Your task to perform on an android device: Search for "lg ultragear" on target, select the first entry, add it to the cart, then select checkout. Image 0: 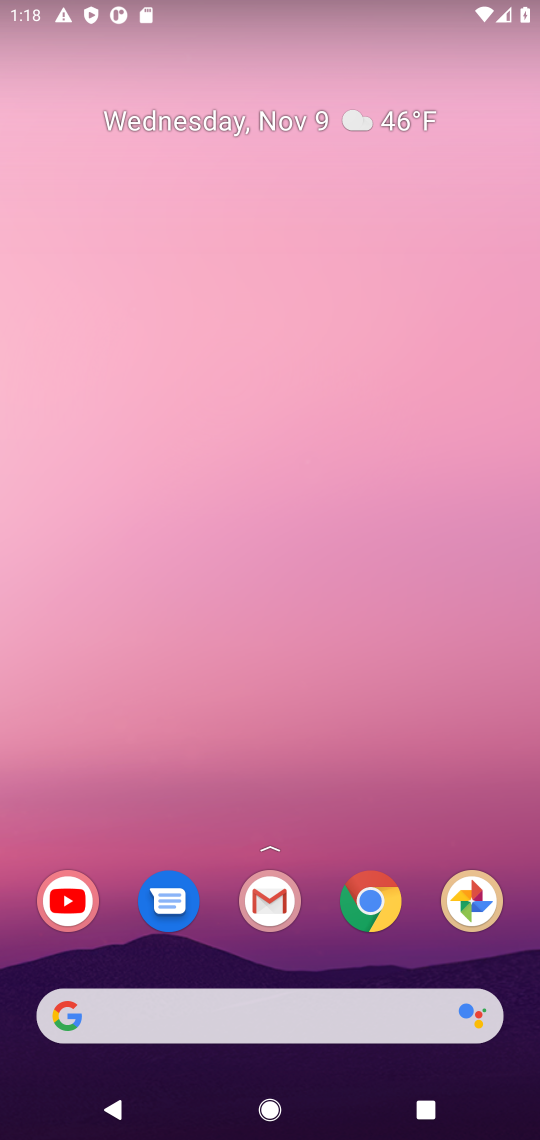
Step 0: click (381, 909)
Your task to perform on an android device: Search for "lg ultragear" on target, select the first entry, add it to the cart, then select checkout. Image 1: 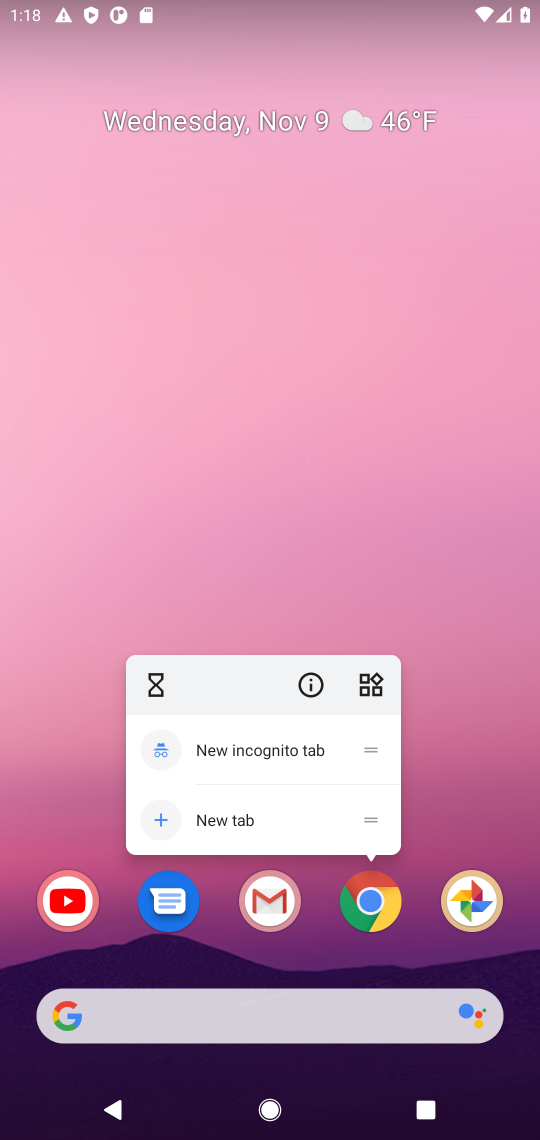
Step 1: click (366, 918)
Your task to perform on an android device: Search for "lg ultragear" on target, select the first entry, add it to the cart, then select checkout. Image 2: 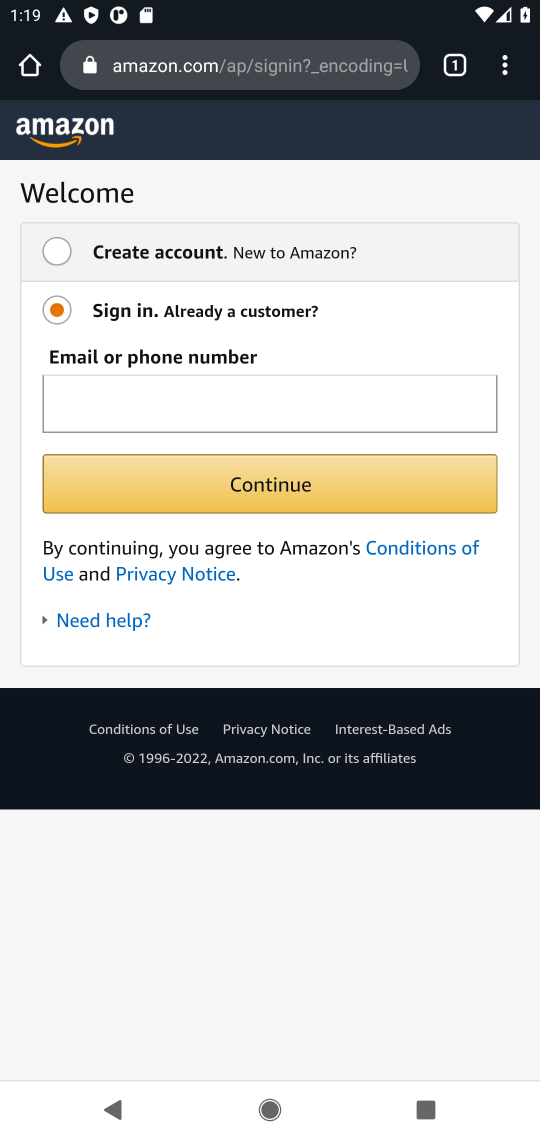
Step 2: click (259, 66)
Your task to perform on an android device: Search for "lg ultragear" on target, select the first entry, add it to the cart, then select checkout. Image 3: 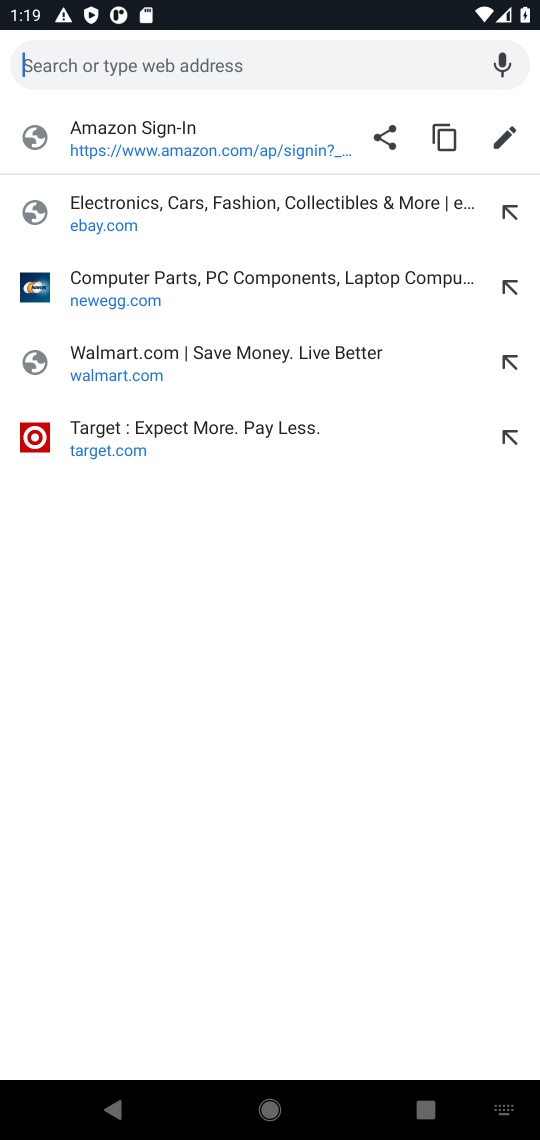
Step 3: press enter
Your task to perform on an android device: Search for "lg ultragear" on target, select the first entry, add it to the cart, then select checkout. Image 4: 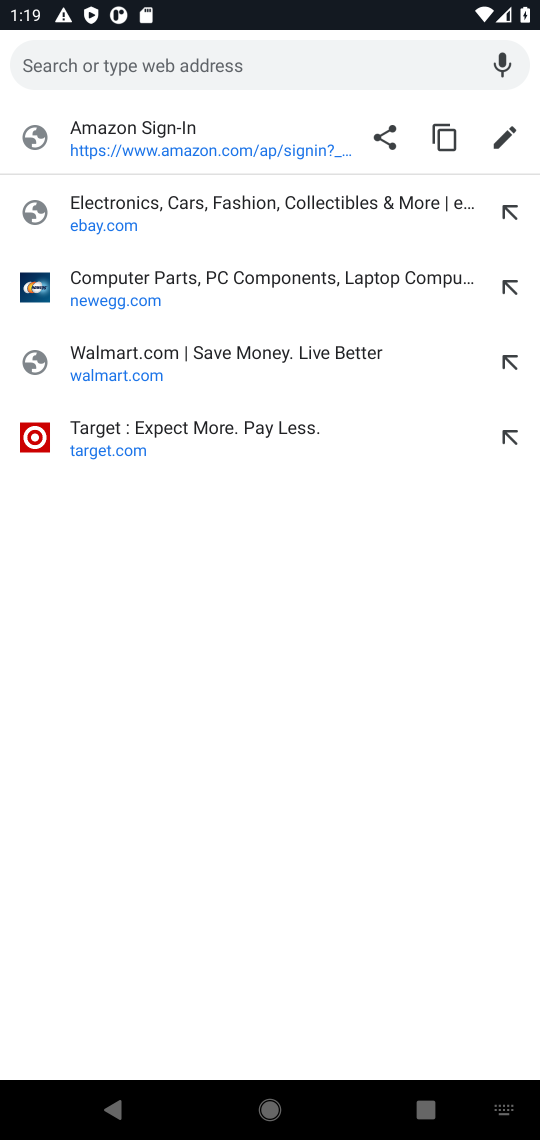
Step 4: type "target"
Your task to perform on an android device: Search for "lg ultragear" on target, select the first entry, add it to the cart, then select checkout. Image 5: 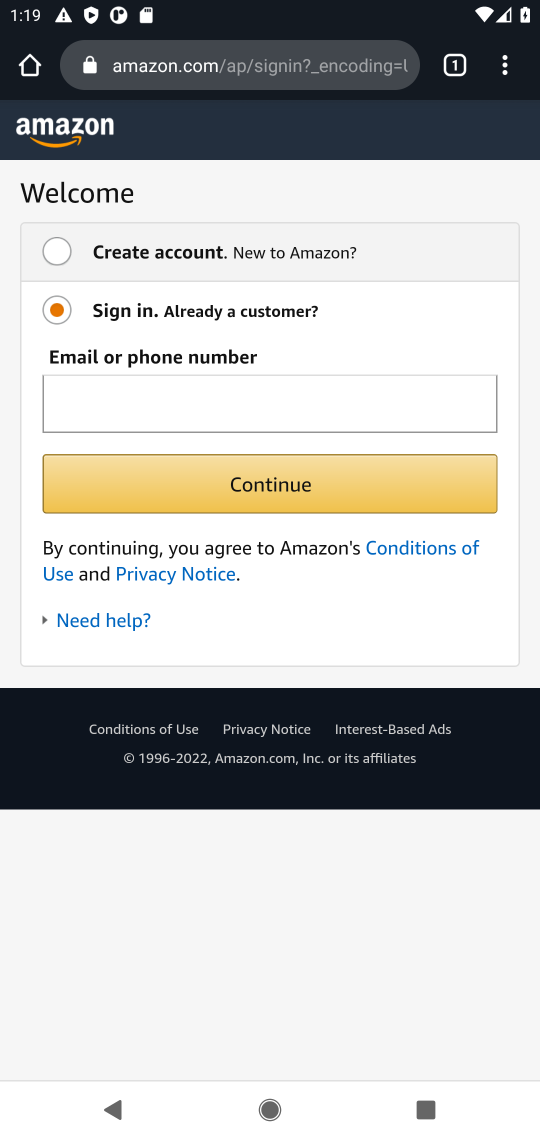
Step 5: click (290, 68)
Your task to perform on an android device: Search for "lg ultragear" on target, select the first entry, add it to the cart, then select checkout. Image 6: 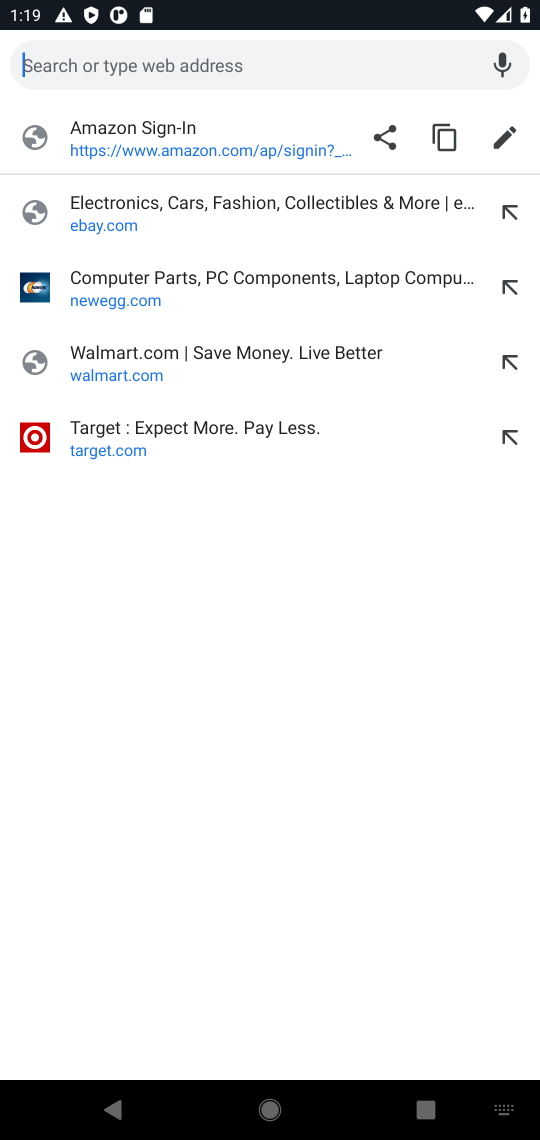
Step 6: press enter
Your task to perform on an android device: Search for "lg ultragear" on target, select the first entry, add it to the cart, then select checkout. Image 7: 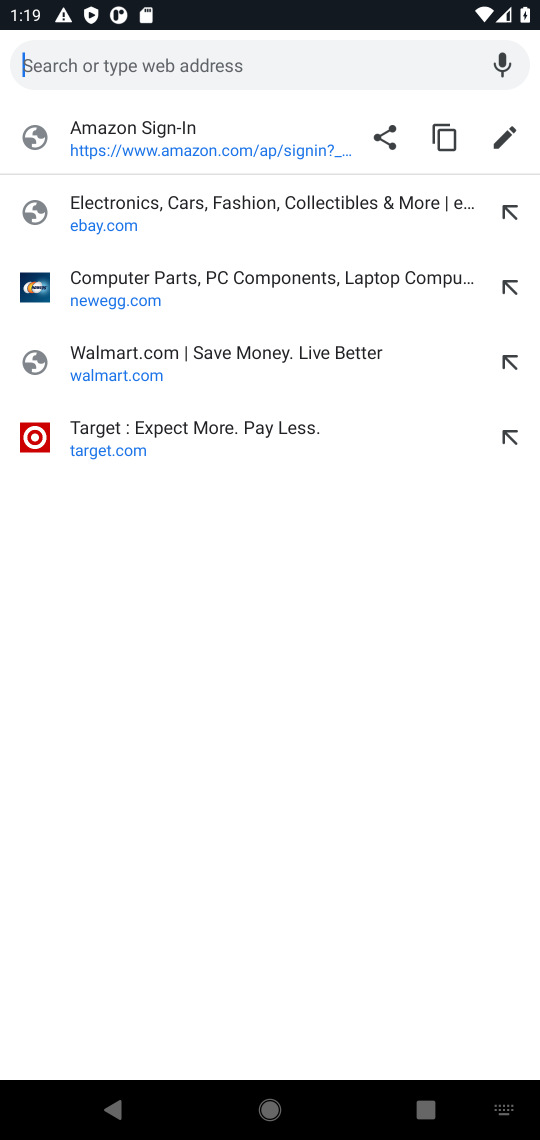
Step 7: type "target"
Your task to perform on an android device: Search for "lg ultragear" on target, select the first entry, add it to the cart, then select checkout. Image 8: 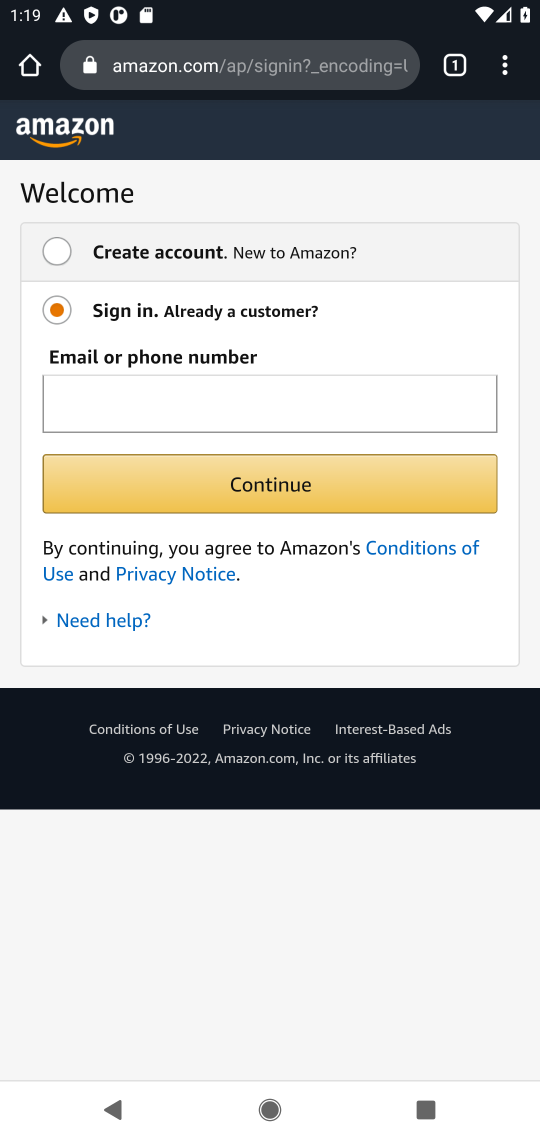
Step 8: click (280, 75)
Your task to perform on an android device: Search for "lg ultragear" on target, select the first entry, add it to the cart, then select checkout. Image 9: 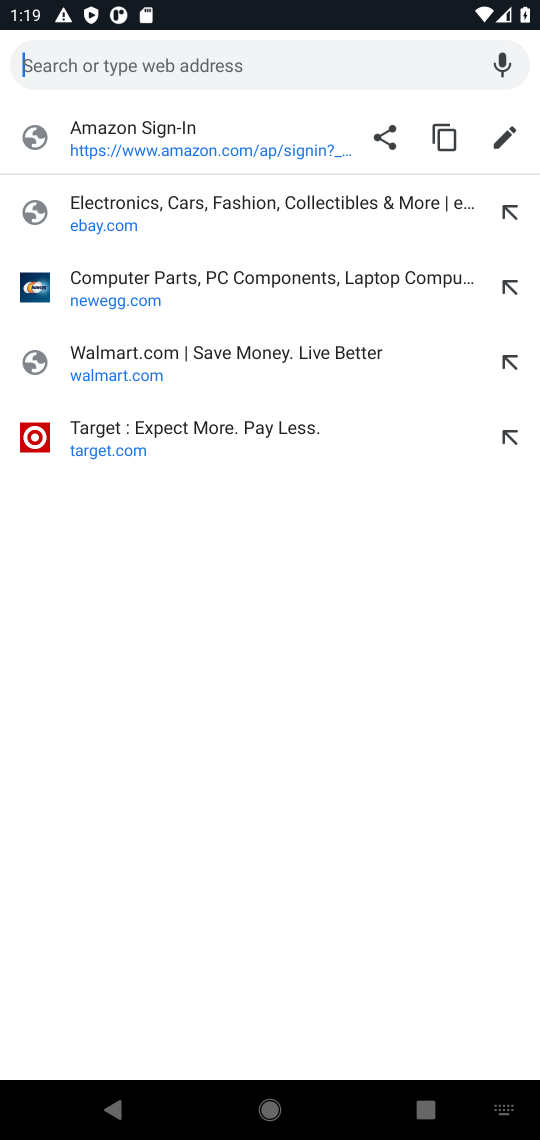
Step 9: type "target"
Your task to perform on an android device: Search for "lg ultragear" on target, select the first entry, add it to the cart, then select checkout. Image 10: 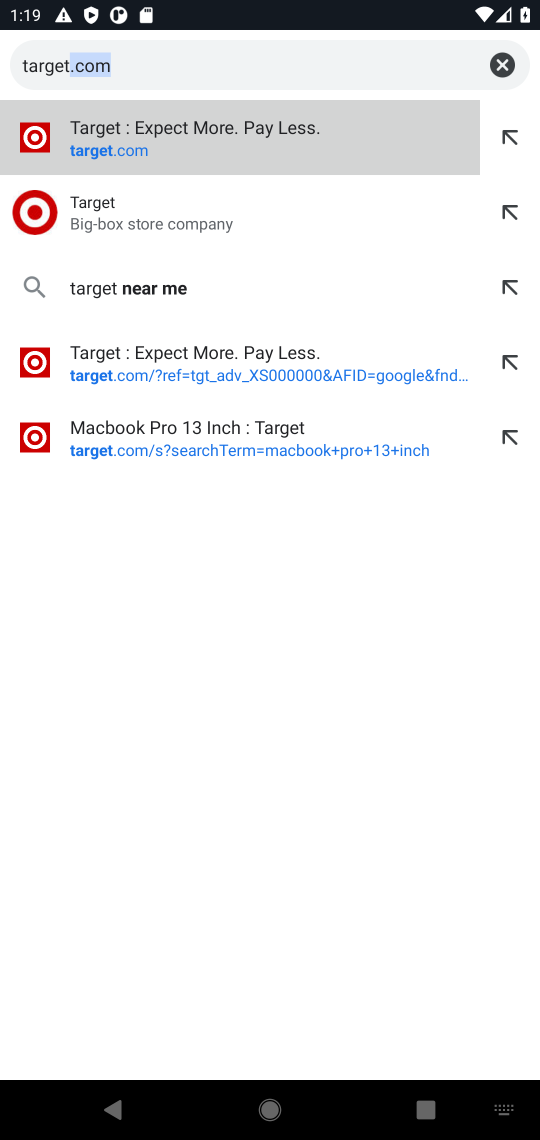
Step 10: click (391, 60)
Your task to perform on an android device: Search for "lg ultragear" on target, select the first entry, add it to the cart, then select checkout. Image 11: 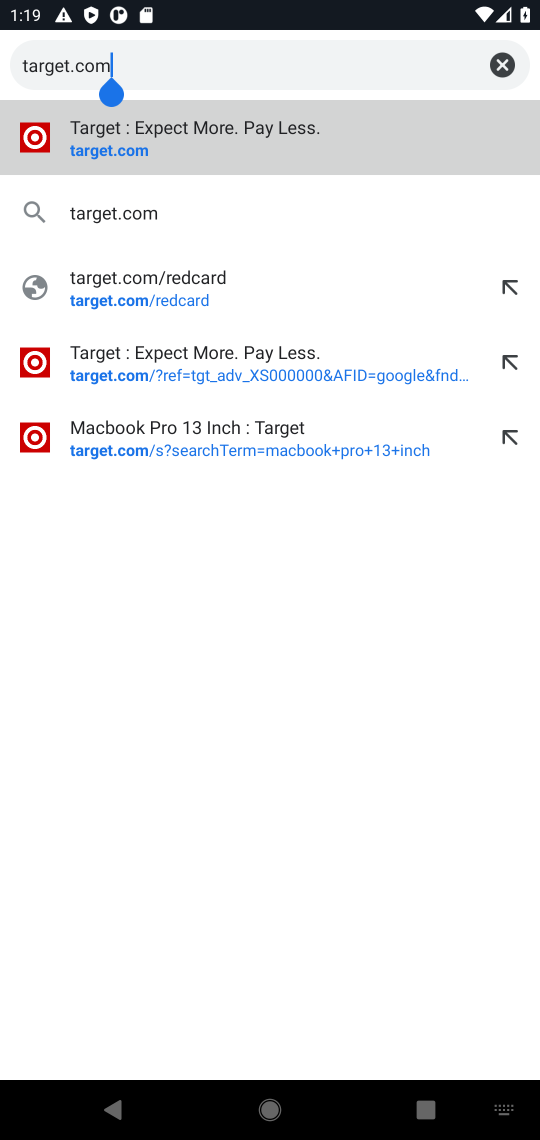
Step 11: click (138, 202)
Your task to perform on an android device: Search for "lg ultragear" on target, select the first entry, add it to the cart, then select checkout. Image 12: 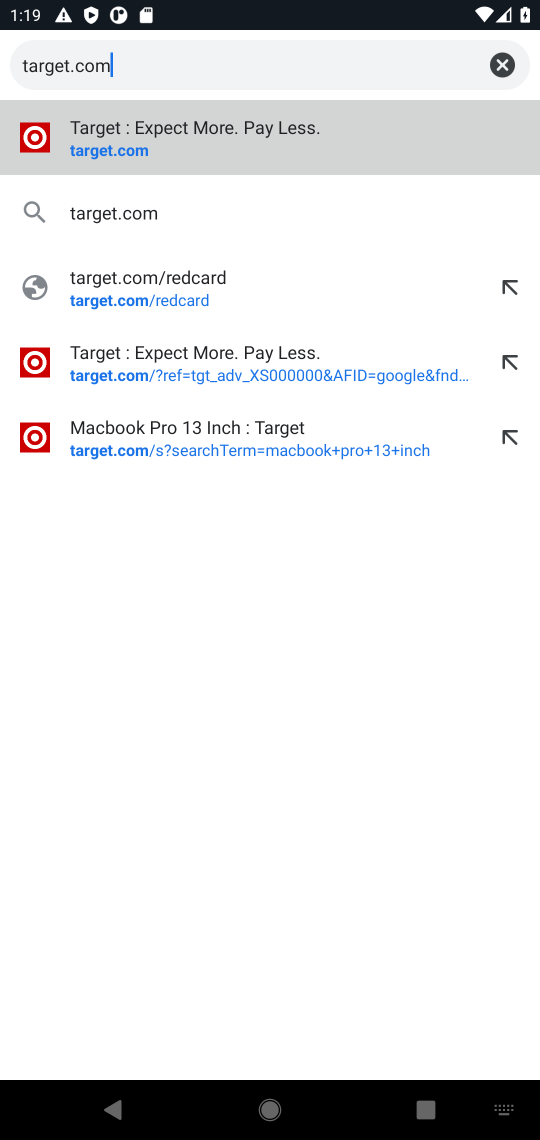
Step 12: click (135, 214)
Your task to perform on an android device: Search for "lg ultragear" on target, select the first entry, add it to the cart, then select checkout. Image 13: 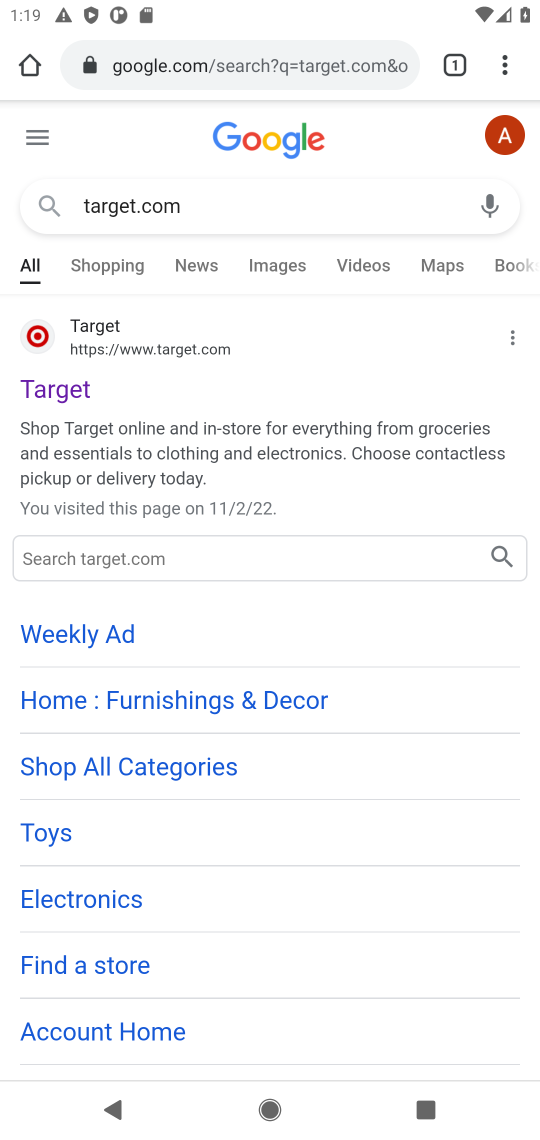
Step 13: click (180, 349)
Your task to perform on an android device: Search for "lg ultragear" on target, select the first entry, add it to the cart, then select checkout. Image 14: 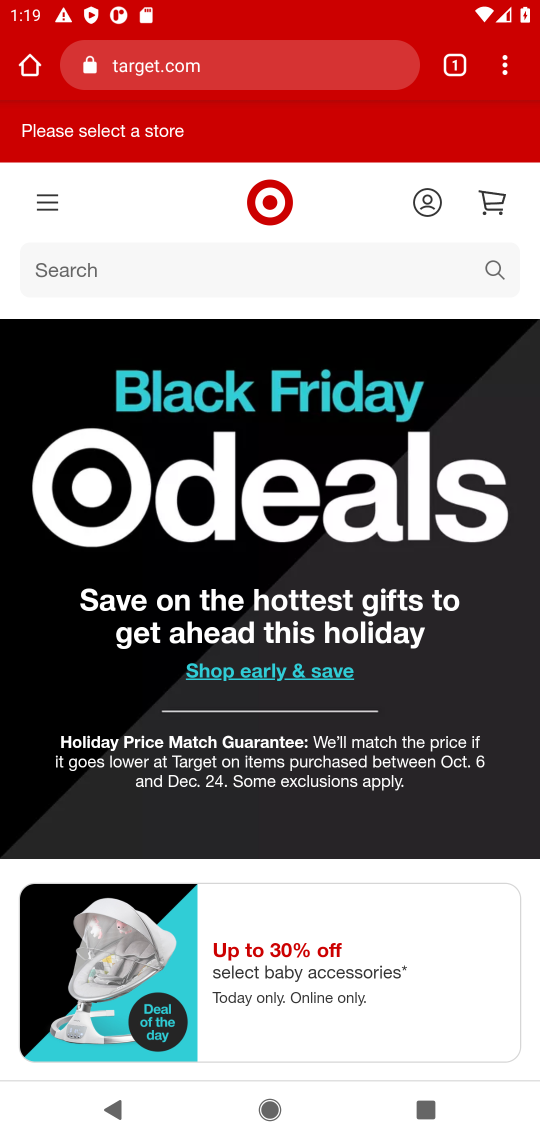
Step 14: click (502, 268)
Your task to perform on an android device: Search for "lg ultragear" on target, select the first entry, add it to the cart, then select checkout. Image 15: 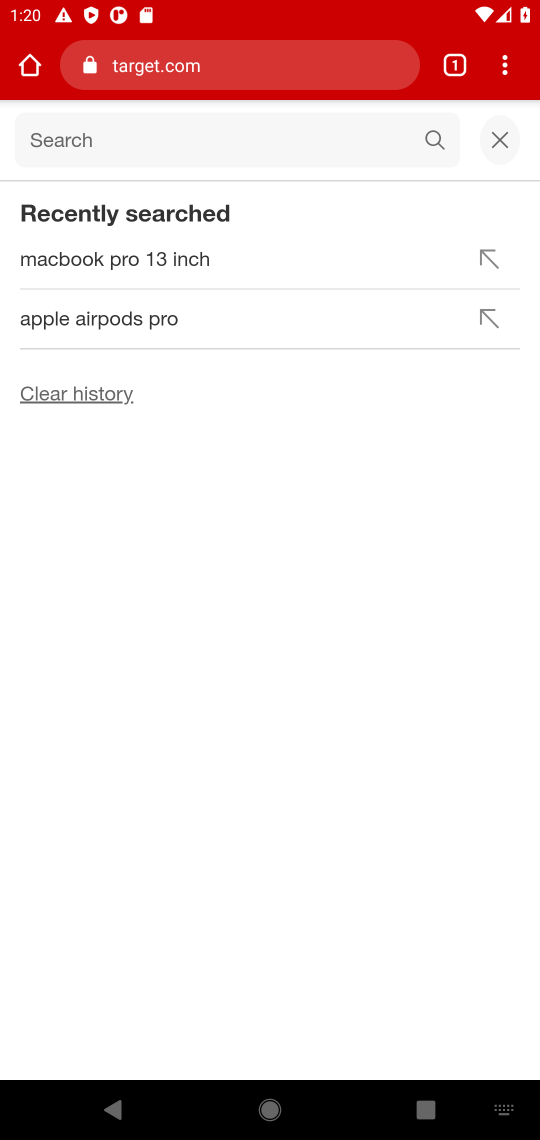
Step 15: type "lg ultragear"
Your task to perform on an android device: Search for "lg ultragear" on target, select the first entry, add it to the cart, then select checkout. Image 16: 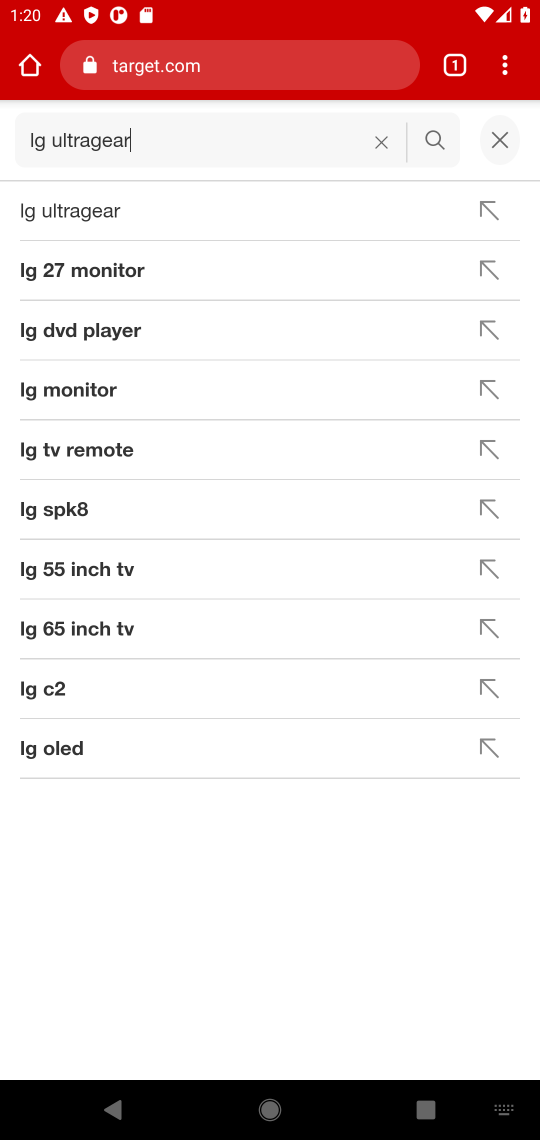
Step 16: click (97, 210)
Your task to perform on an android device: Search for "lg ultragear" on target, select the first entry, add it to the cart, then select checkout. Image 17: 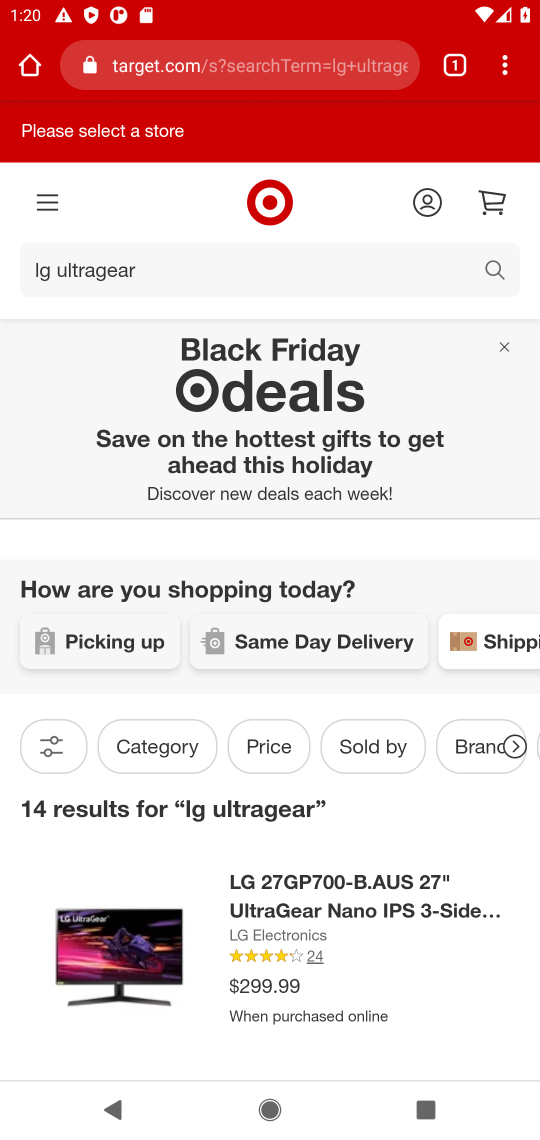
Step 17: drag from (437, 893) to (472, 354)
Your task to perform on an android device: Search for "lg ultragear" on target, select the first entry, add it to the cart, then select checkout. Image 18: 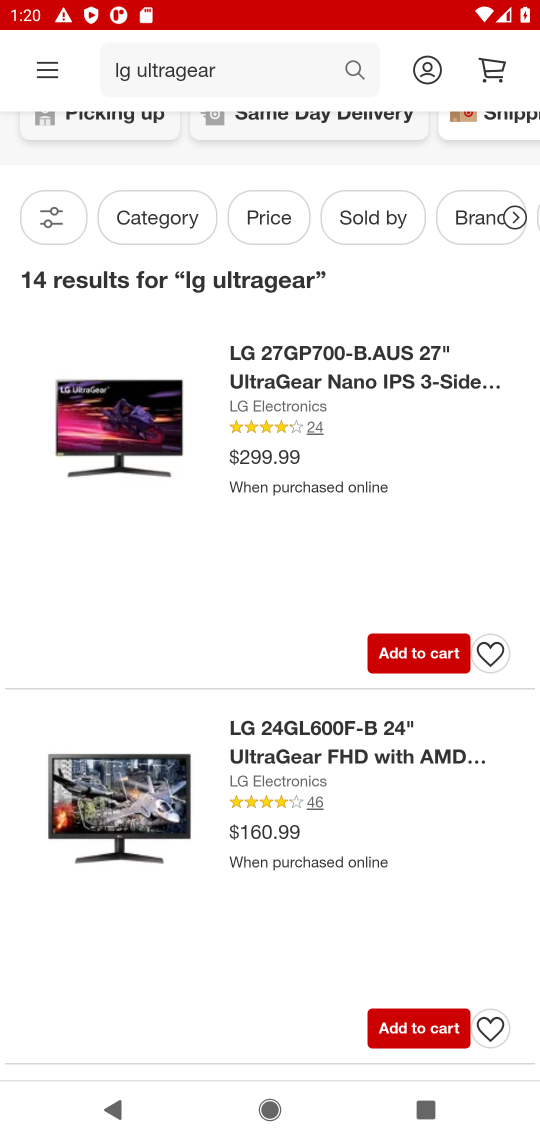
Step 18: click (118, 421)
Your task to perform on an android device: Search for "lg ultragear" on target, select the first entry, add it to the cart, then select checkout. Image 19: 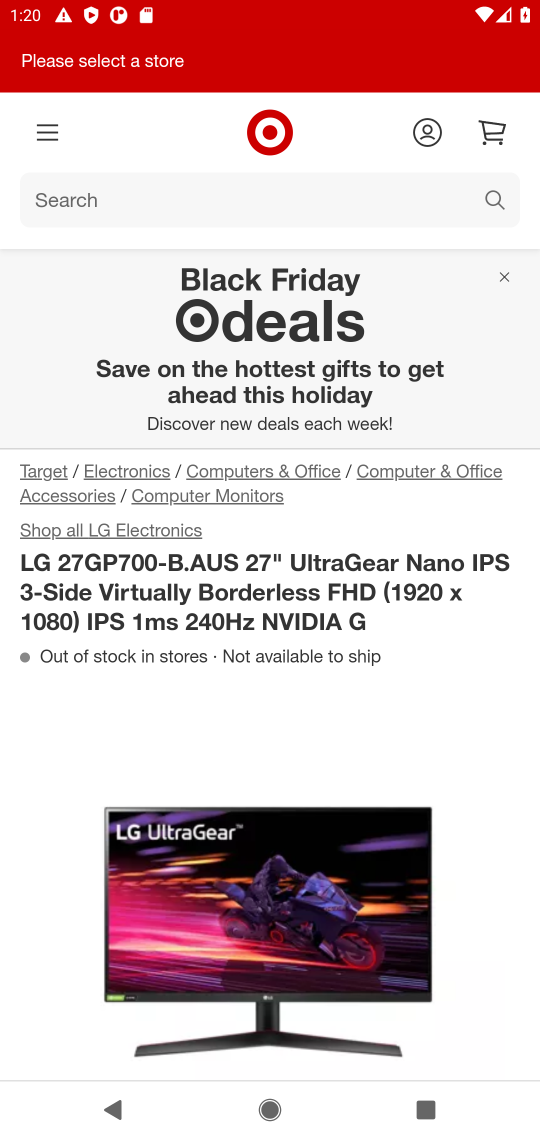
Step 19: drag from (414, 829) to (503, 219)
Your task to perform on an android device: Search for "lg ultragear" on target, select the first entry, add it to the cart, then select checkout. Image 20: 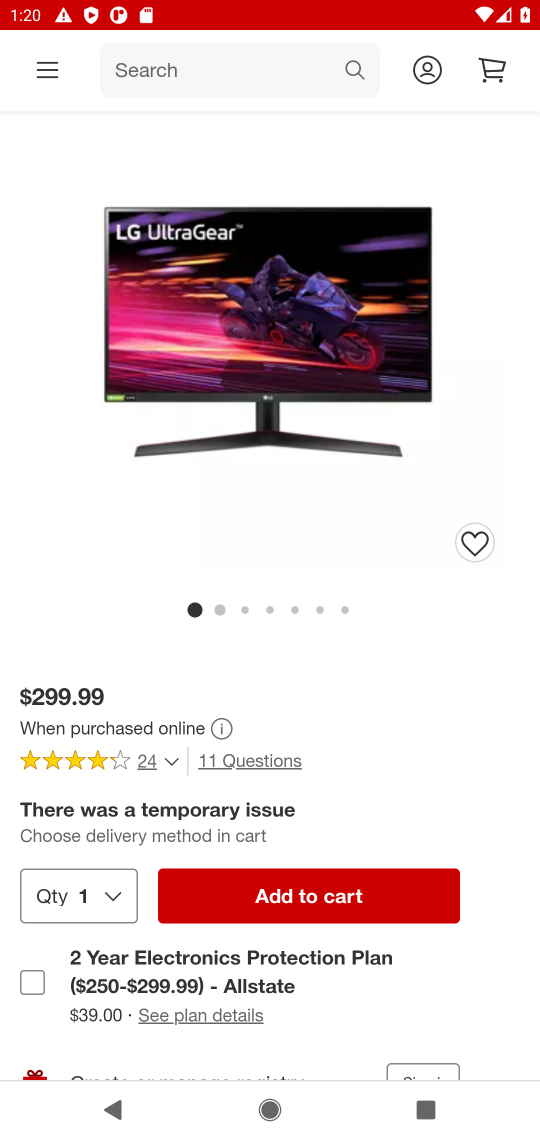
Step 20: click (339, 880)
Your task to perform on an android device: Search for "lg ultragear" on target, select the first entry, add it to the cart, then select checkout. Image 21: 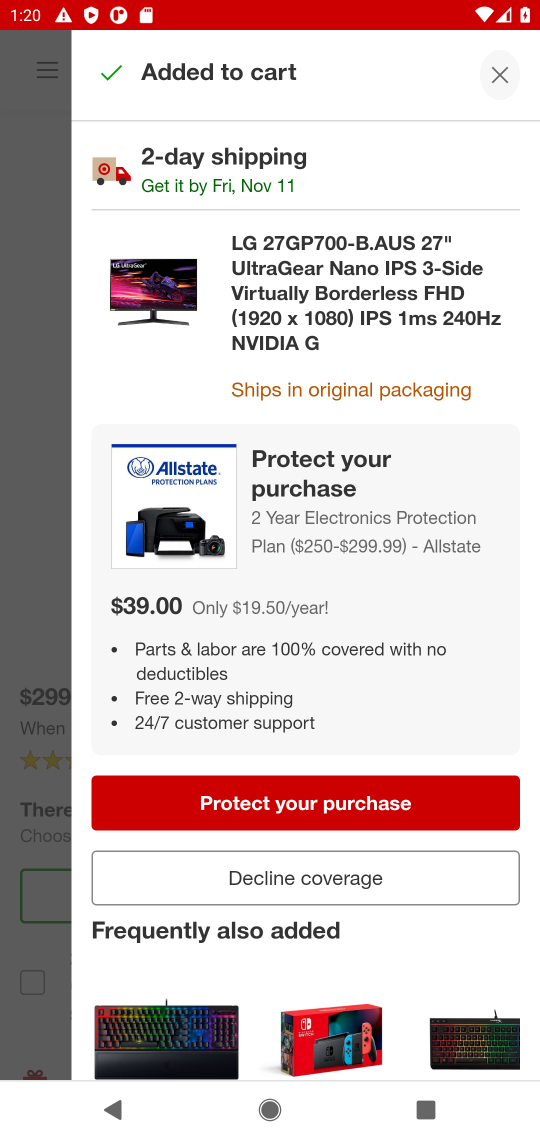
Step 21: click (499, 60)
Your task to perform on an android device: Search for "lg ultragear" on target, select the first entry, add it to the cart, then select checkout. Image 22: 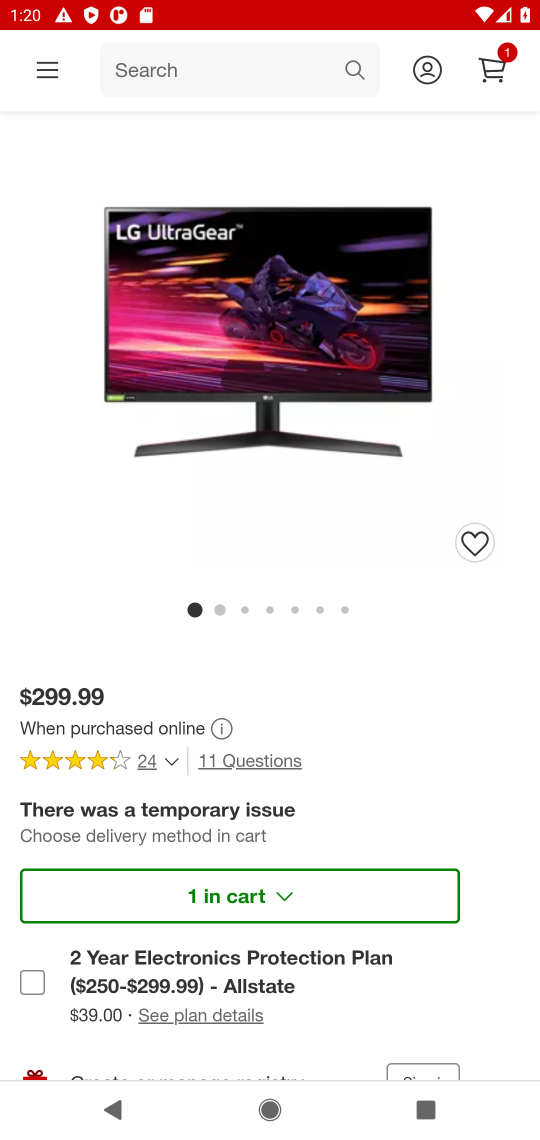
Step 22: click (496, 70)
Your task to perform on an android device: Search for "lg ultragear" on target, select the first entry, add it to the cart, then select checkout. Image 23: 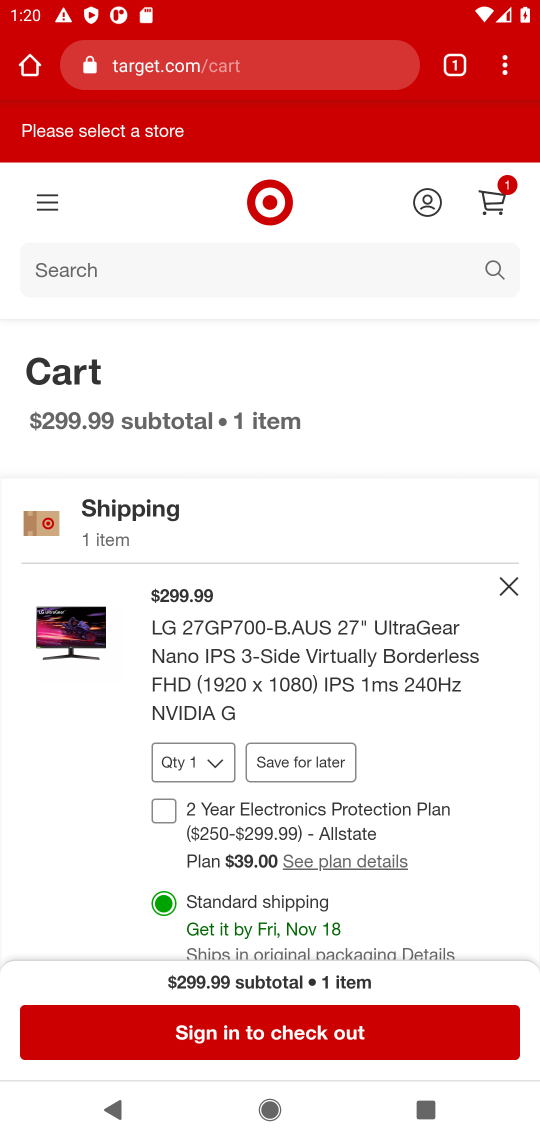
Step 23: click (343, 1029)
Your task to perform on an android device: Search for "lg ultragear" on target, select the first entry, add it to the cart, then select checkout. Image 24: 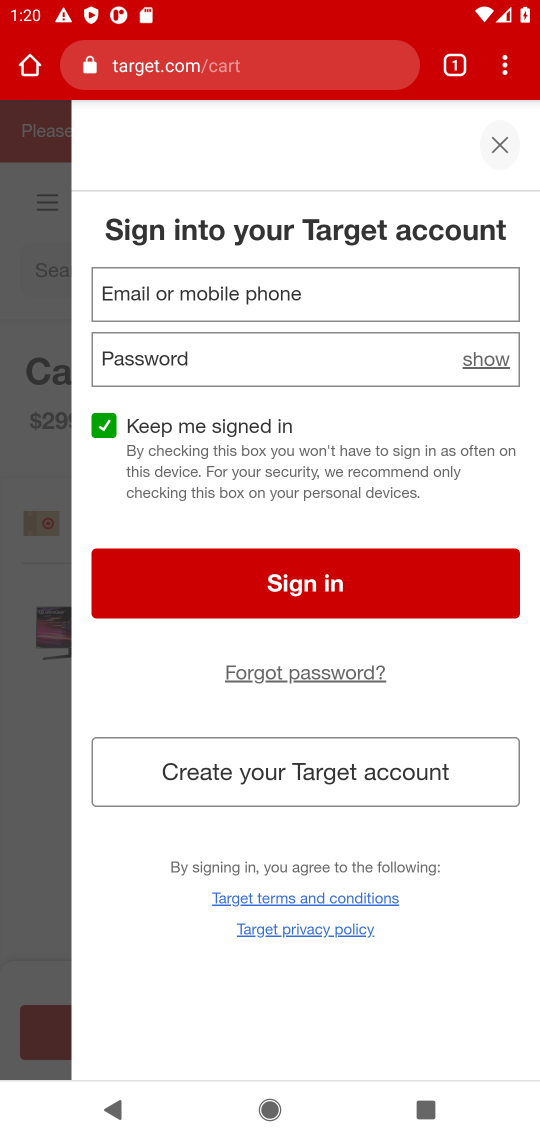
Step 24: task complete